Your task to perform on an android device: Go to wifi settings Image 0: 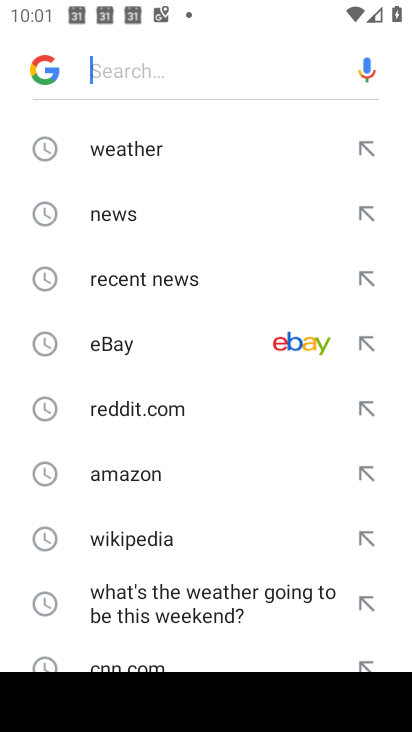
Step 0: press home button
Your task to perform on an android device: Go to wifi settings Image 1: 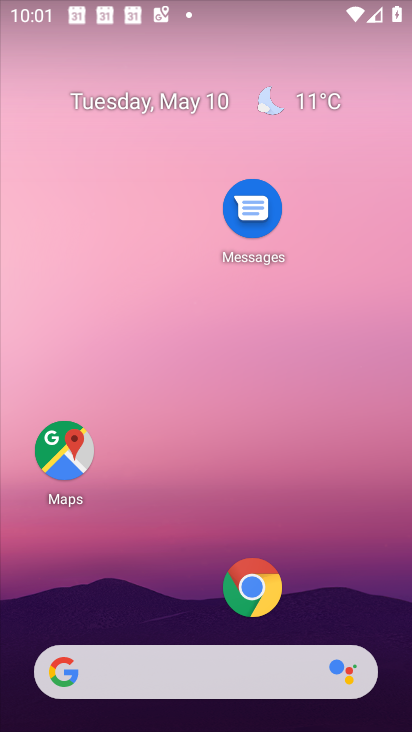
Step 1: drag from (192, 570) to (214, 42)
Your task to perform on an android device: Go to wifi settings Image 2: 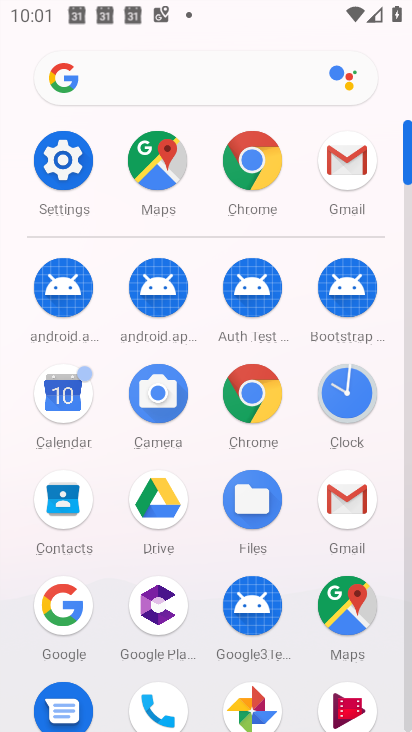
Step 2: click (76, 203)
Your task to perform on an android device: Go to wifi settings Image 3: 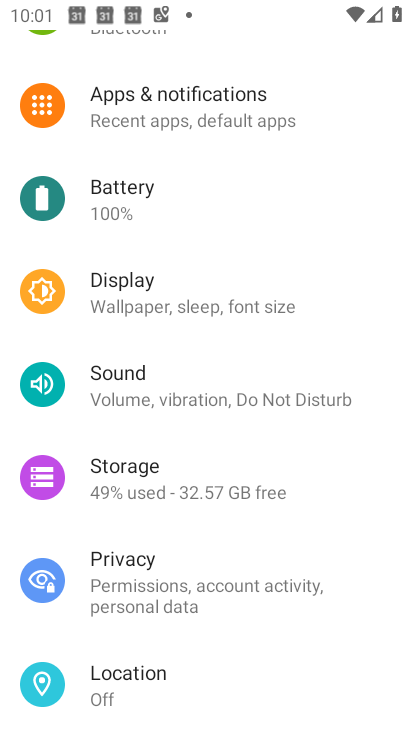
Step 3: drag from (183, 210) to (197, 396)
Your task to perform on an android device: Go to wifi settings Image 4: 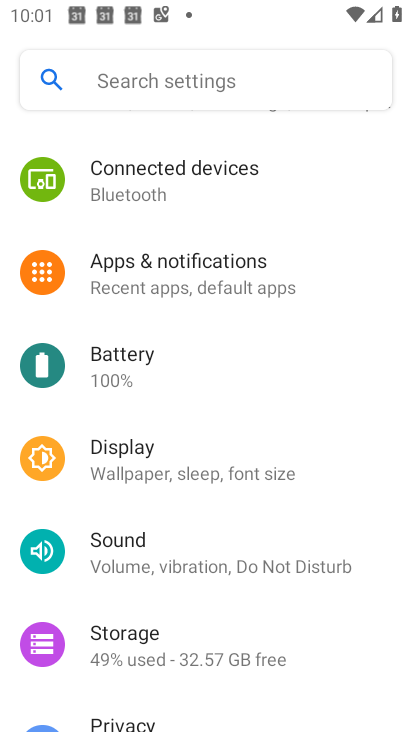
Step 4: drag from (208, 247) to (200, 451)
Your task to perform on an android device: Go to wifi settings Image 5: 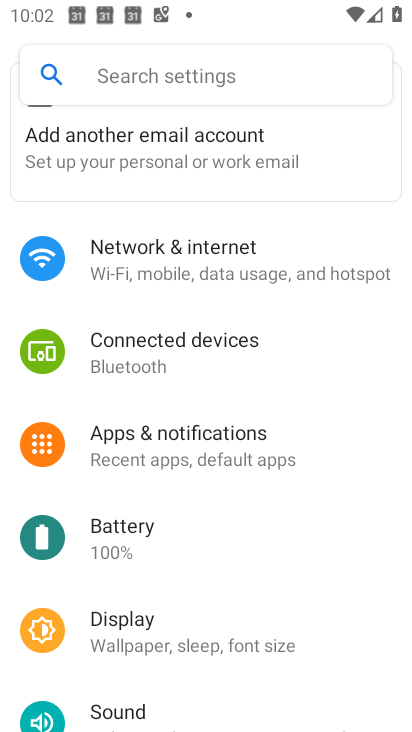
Step 5: click (224, 276)
Your task to perform on an android device: Go to wifi settings Image 6: 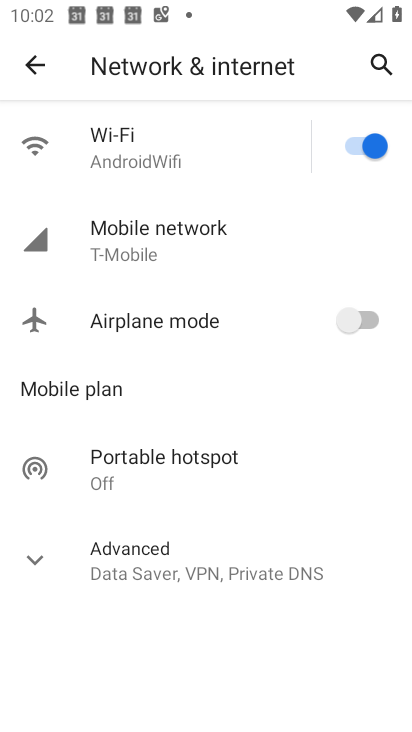
Step 6: click (177, 165)
Your task to perform on an android device: Go to wifi settings Image 7: 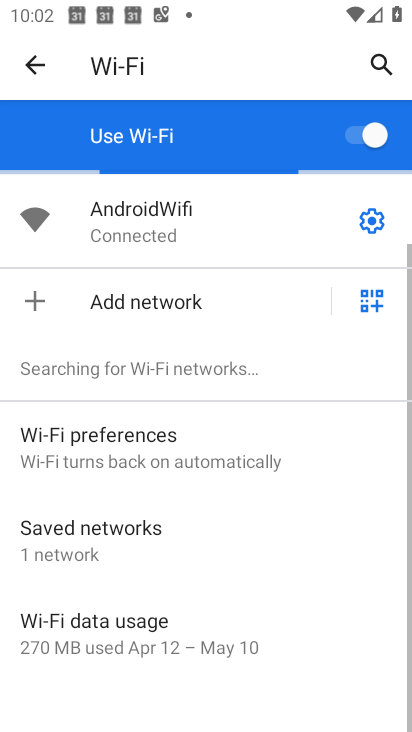
Step 7: task complete